Your task to perform on an android device: Open Yahoo.com Image 0: 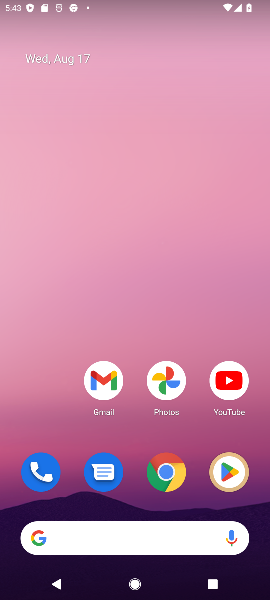
Step 0: click (163, 468)
Your task to perform on an android device: Open Yahoo.com Image 1: 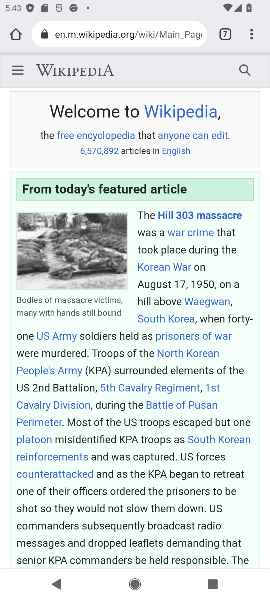
Step 1: click (225, 31)
Your task to perform on an android device: Open Yahoo.com Image 2: 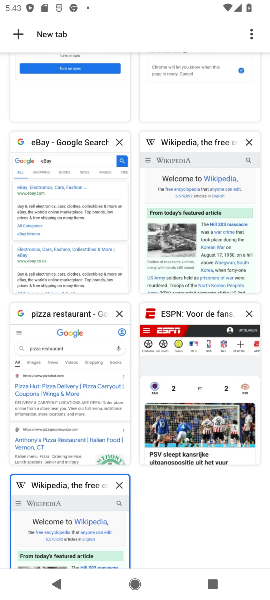
Step 2: click (22, 35)
Your task to perform on an android device: Open Yahoo.com Image 3: 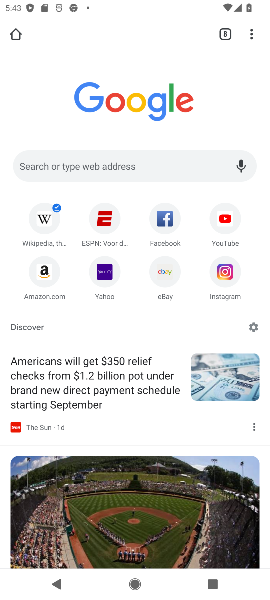
Step 3: click (102, 159)
Your task to perform on an android device: Open Yahoo.com Image 4: 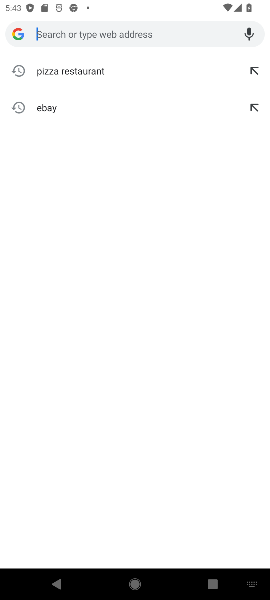
Step 4: press back button
Your task to perform on an android device: Open Yahoo.com Image 5: 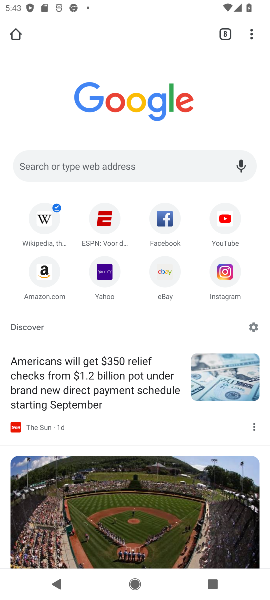
Step 5: click (111, 271)
Your task to perform on an android device: Open Yahoo.com Image 6: 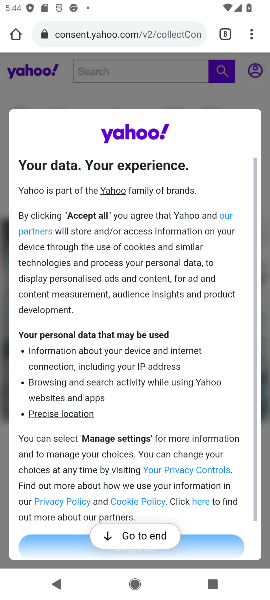
Step 6: task complete